Your task to perform on an android device: Open calendar and show me the third week of next month Image 0: 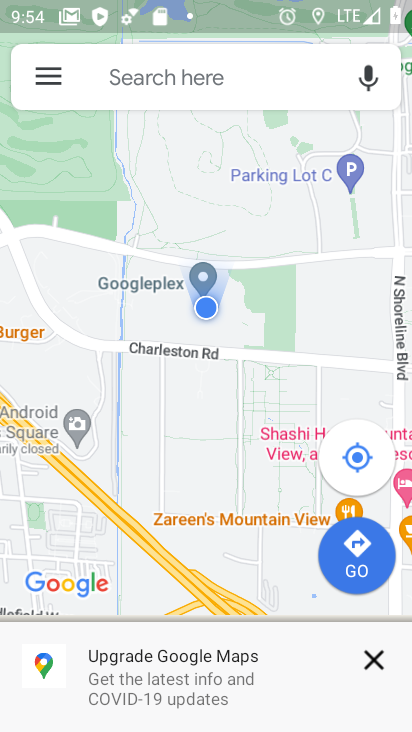
Step 0: press back button
Your task to perform on an android device: Open calendar and show me the third week of next month Image 1: 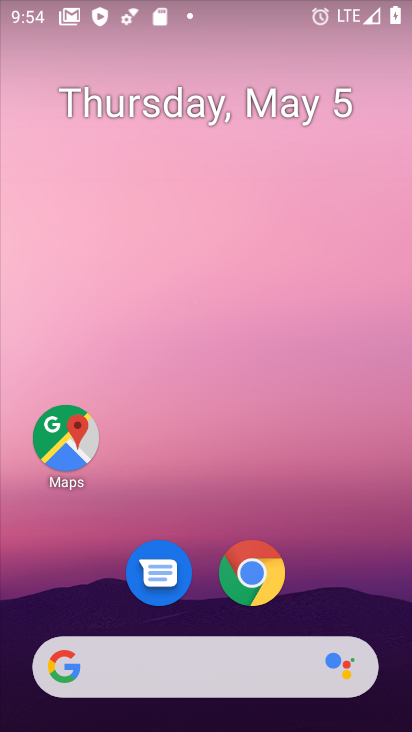
Step 1: drag from (203, 608) to (270, 81)
Your task to perform on an android device: Open calendar and show me the third week of next month Image 2: 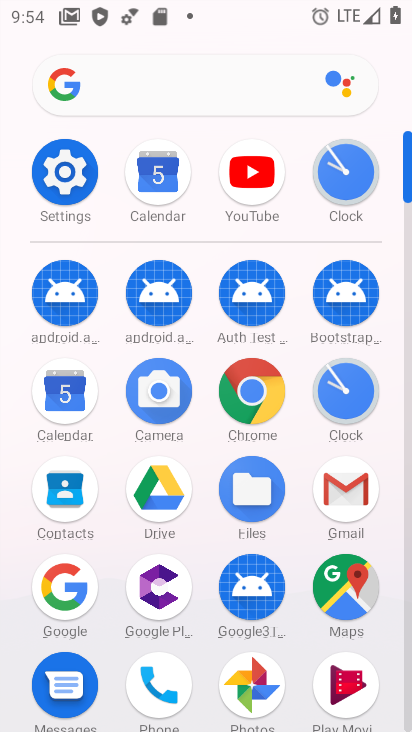
Step 2: click (66, 400)
Your task to perform on an android device: Open calendar and show me the third week of next month Image 3: 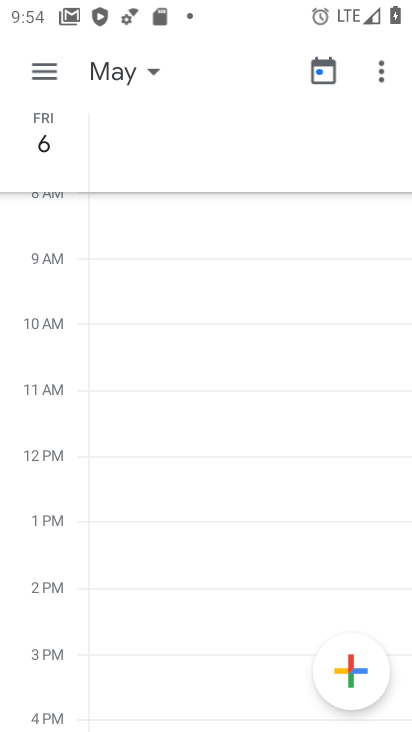
Step 3: click (152, 68)
Your task to perform on an android device: Open calendar and show me the third week of next month Image 4: 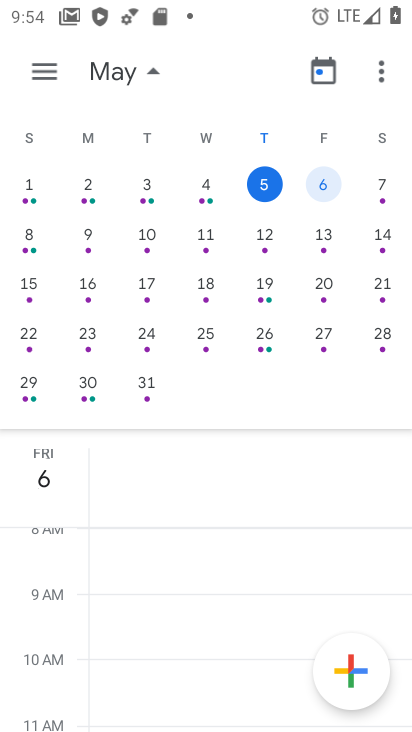
Step 4: drag from (366, 302) to (35, 260)
Your task to perform on an android device: Open calendar and show me the third week of next month Image 5: 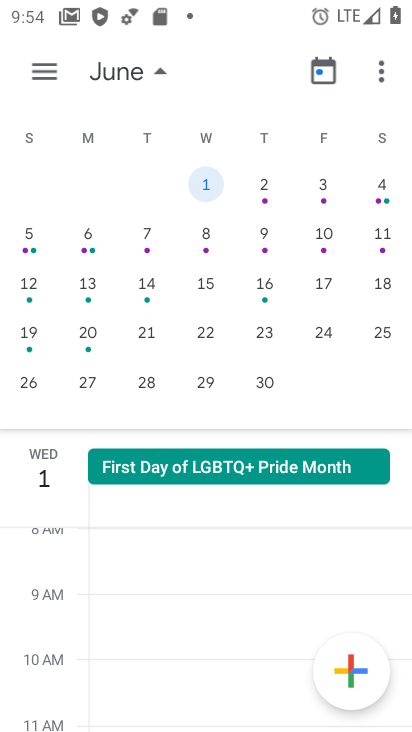
Step 5: click (92, 329)
Your task to perform on an android device: Open calendar and show me the third week of next month Image 6: 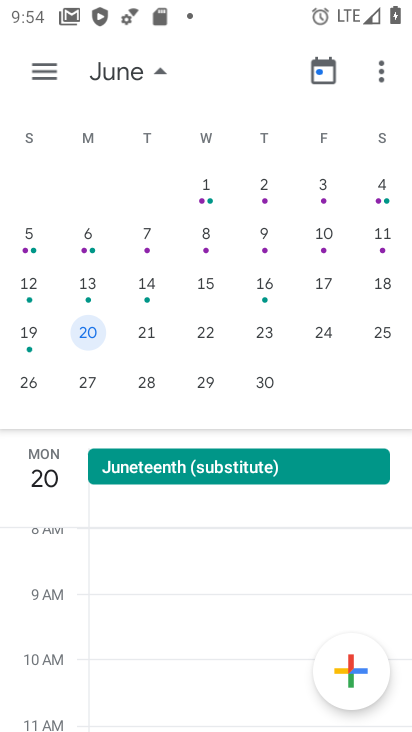
Step 6: task complete